Your task to perform on an android device: Go to privacy settings Image 0: 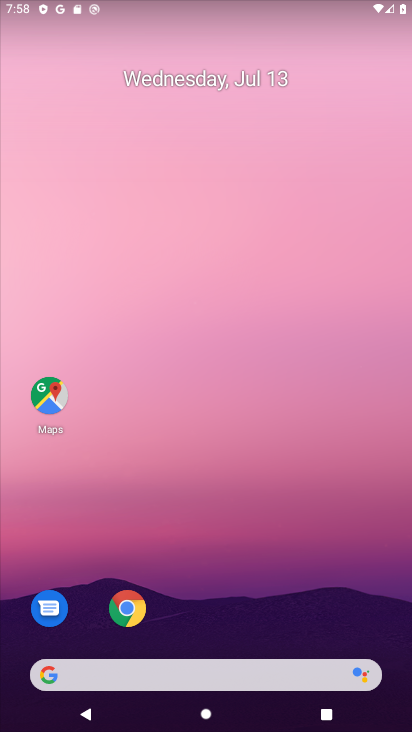
Step 0: drag from (248, 697) to (118, 287)
Your task to perform on an android device: Go to privacy settings Image 1: 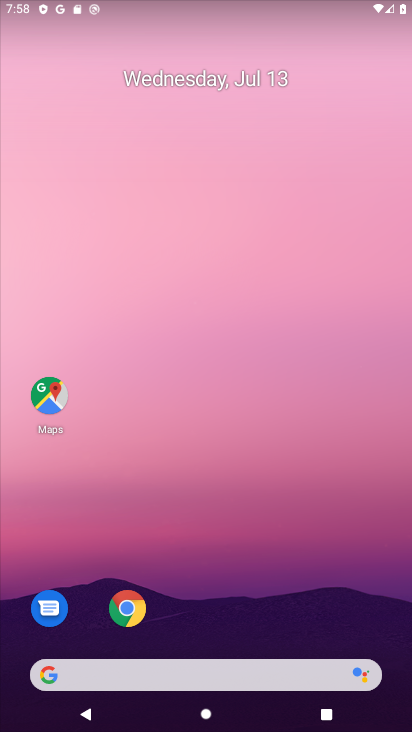
Step 1: drag from (227, 599) to (122, 149)
Your task to perform on an android device: Go to privacy settings Image 2: 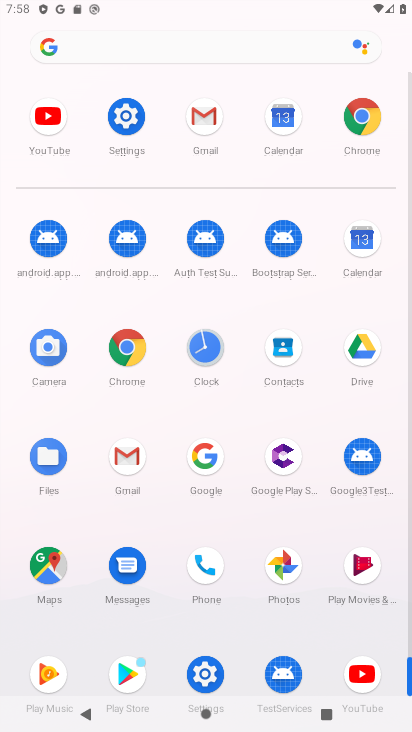
Step 2: click (202, 658)
Your task to perform on an android device: Go to privacy settings Image 3: 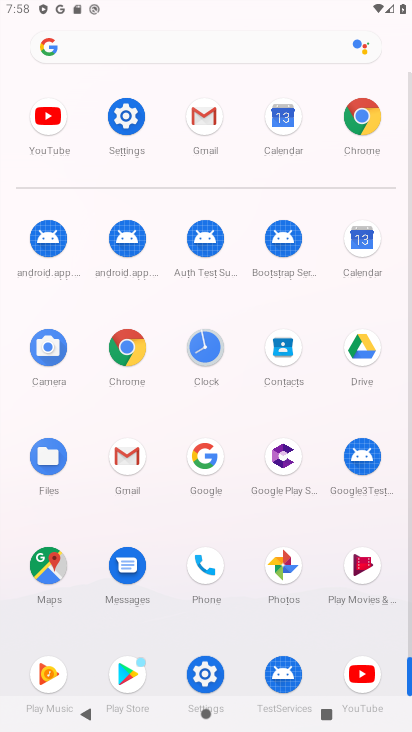
Step 3: click (202, 658)
Your task to perform on an android device: Go to privacy settings Image 4: 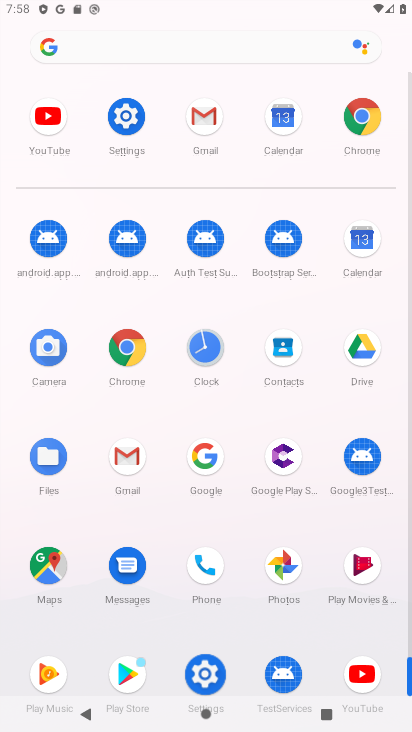
Step 4: click (202, 658)
Your task to perform on an android device: Go to privacy settings Image 5: 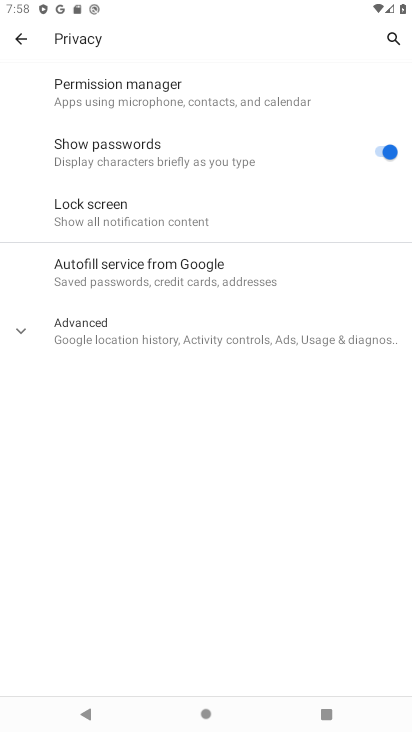
Step 5: task complete